Your task to perform on an android device: turn off picture-in-picture Image 0: 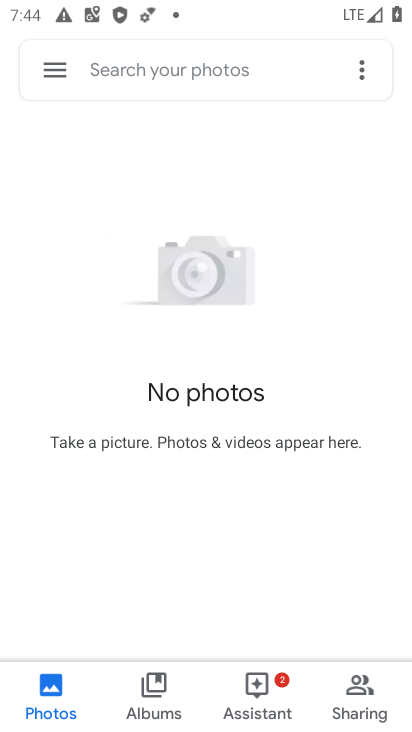
Step 0: press home button
Your task to perform on an android device: turn off picture-in-picture Image 1: 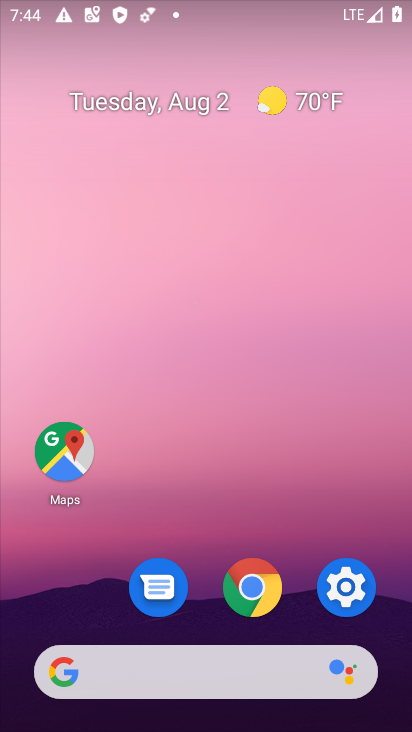
Step 1: drag from (289, 694) to (201, 134)
Your task to perform on an android device: turn off picture-in-picture Image 2: 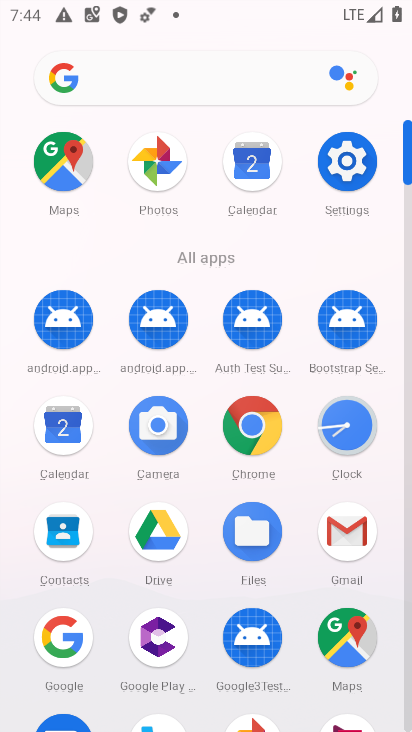
Step 2: drag from (201, 567) to (190, 303)
Your task to perform on an android device: turn off picture-in-picture Image 3: 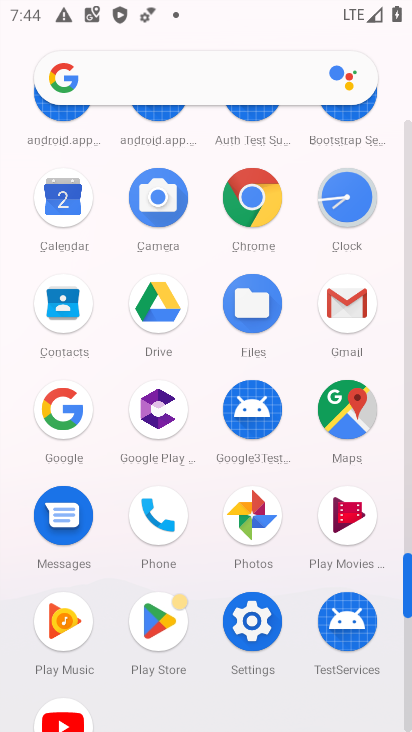
Step 3: click (56, 717)
Your task to perform on an android device: turn off picture-in-picture Image 4: 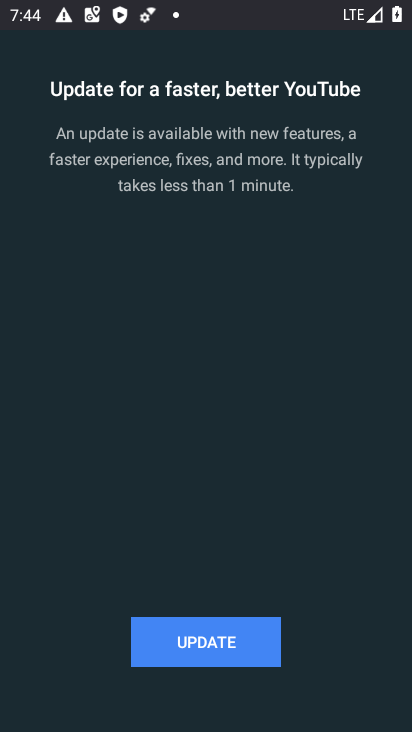
Step 4: click (239, 652)
Your task to perform on an android device: turn off picture-in-picture Image 5: 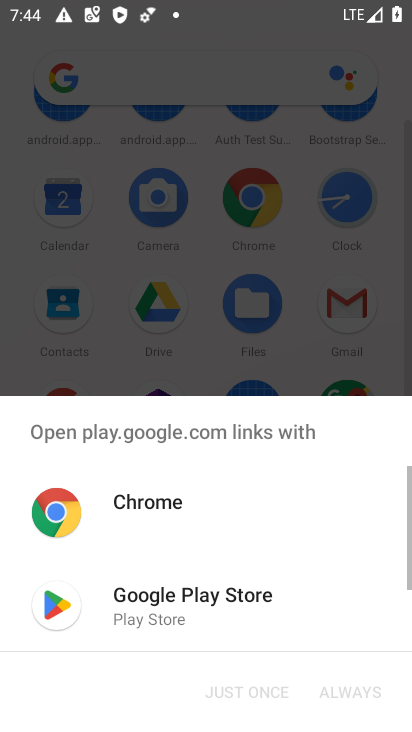
Step 5: click (155, 617)
Your task to perform on an android device: turn off picture-in-picture Image 6: 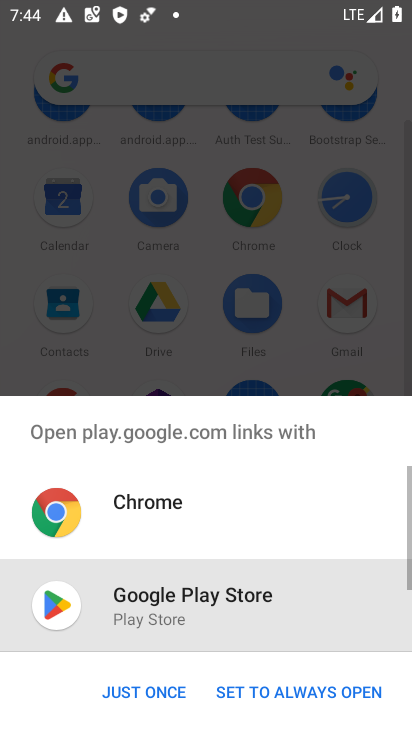
Step 6: click (169, 682)
Your task to perform on an android device: turn off picture-in-picture Image 7: 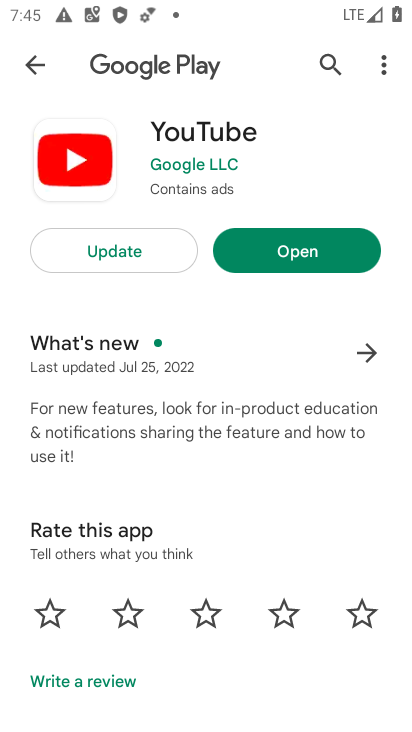
Step 7: click (92, 247)
Your task to perform on an android device: turn off picture-in-picture Image 8: 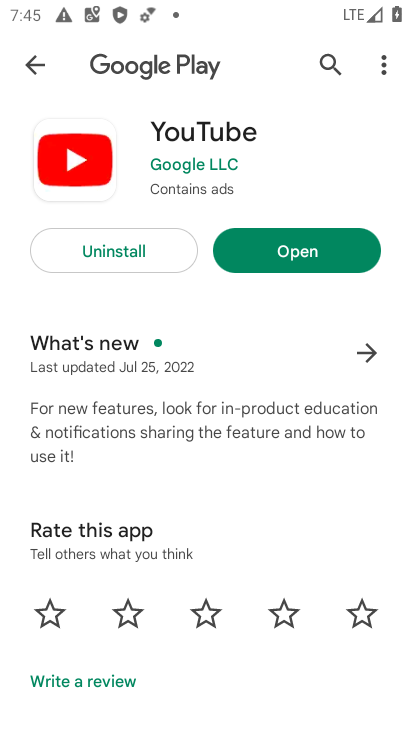
Step 8: click (289, 240)
Your task to perform on an android device: turn off picture-in-picture Image 9: 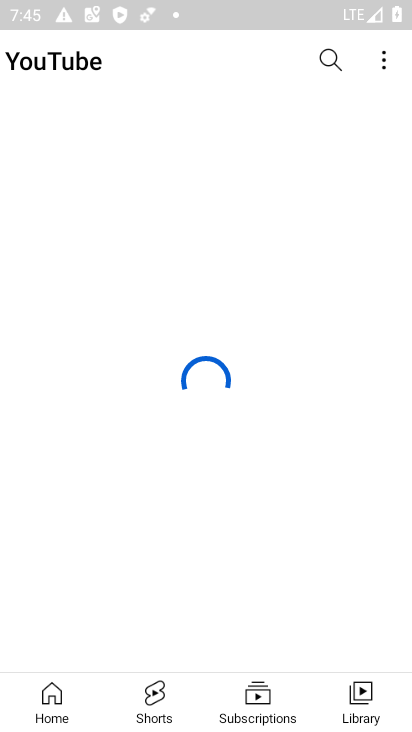
Step 9: click (381, 63)
Your task to perform on an android device: turn off picture-in-picture Image 10: 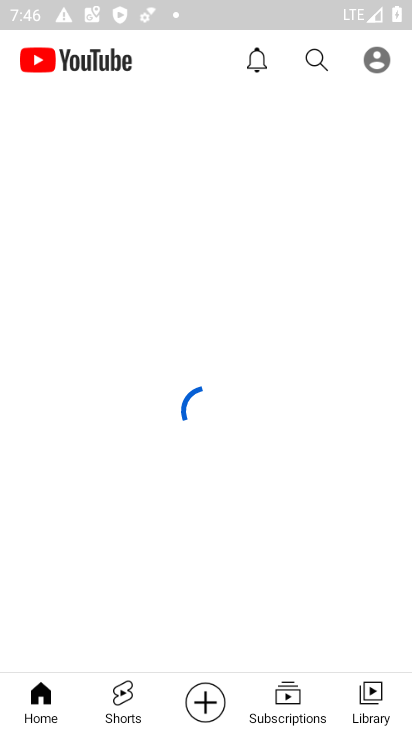
Step 10: click (372, 60)
Your task to perform on an android device: turn off picture-in-picture Image 11: 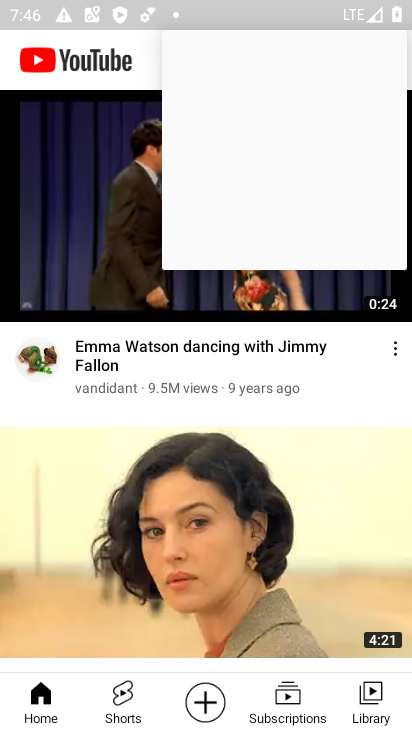
Step 11: click (374, 36)
Your task to perform on an android device: turn off picture-in-picture Image 12: 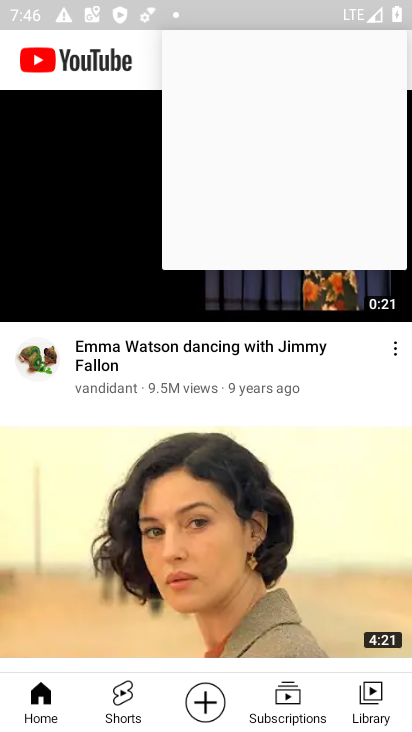
Step 12: click (365, 698)
Your task to perform on an android device: turn off picture-in-picture Image 13: 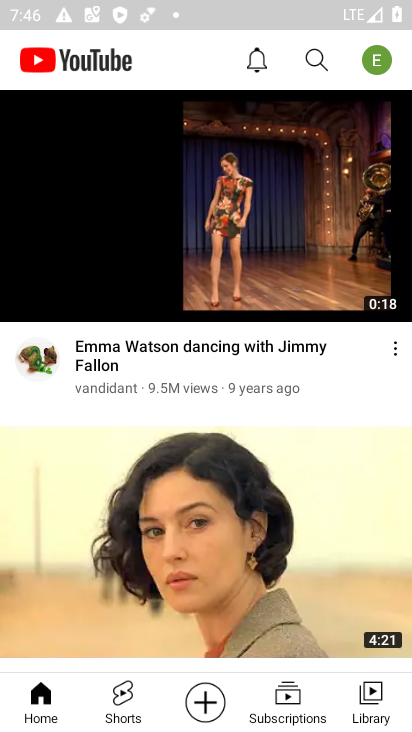
Step 13: click (376, 59)
Your task to perform on an android device: turn off picture-in-picture Image 14: 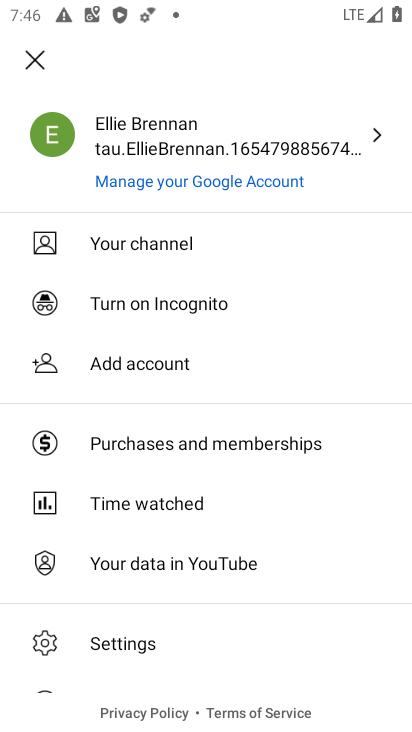
Step 14: click (119, 630)
Your task to perform on an android device: turn off picture-in-picture Image 15: 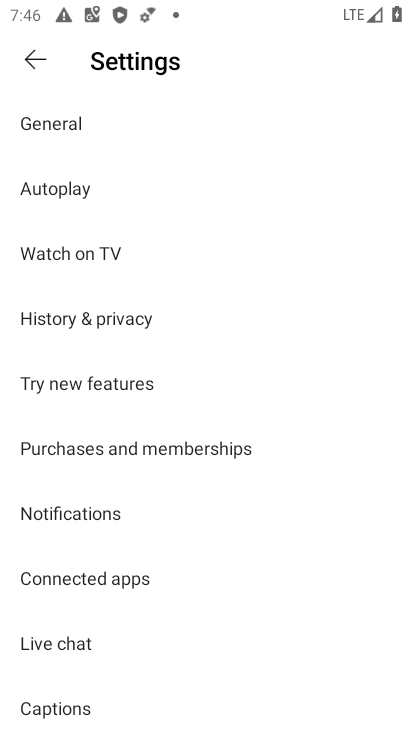
Step 15: click (70, 127)
Your task to perform on an android device: turn off picture-in-picture Image 16: 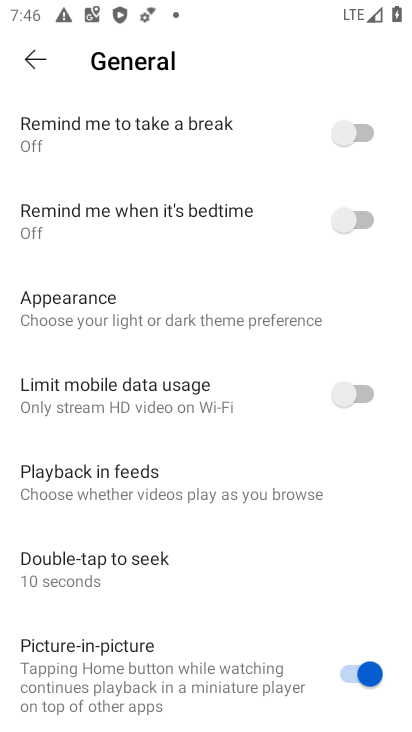
Step 16: click (266, 674)
Your task to perform on an android device: turn off picture-in-picture Image 17: 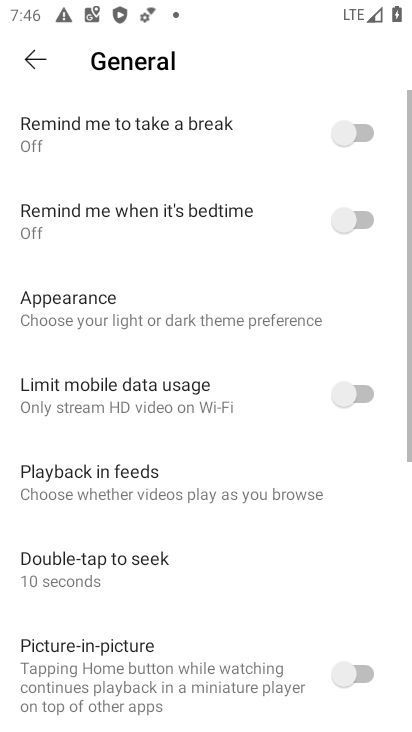
Step 17: task complete